Your task to perform on an android device: Open Google Chrome and click the shortcut for Amazon.com Image 0: 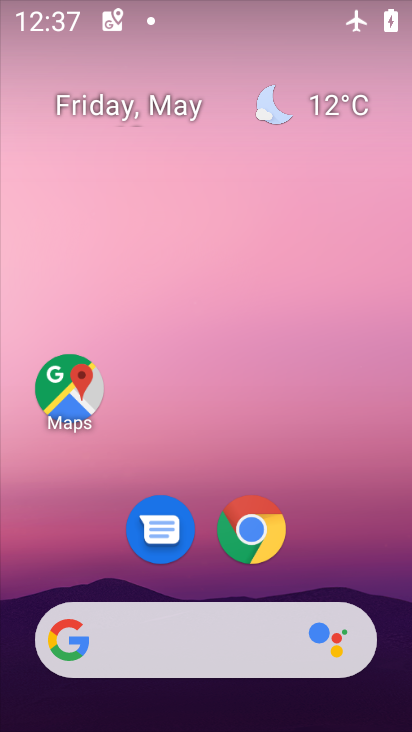
Step 0: drag from (300, 519) to (295, 271)
Your task to perform on an android device: Open Google Chrome and click the shortcut for Amazon.com Image 1: 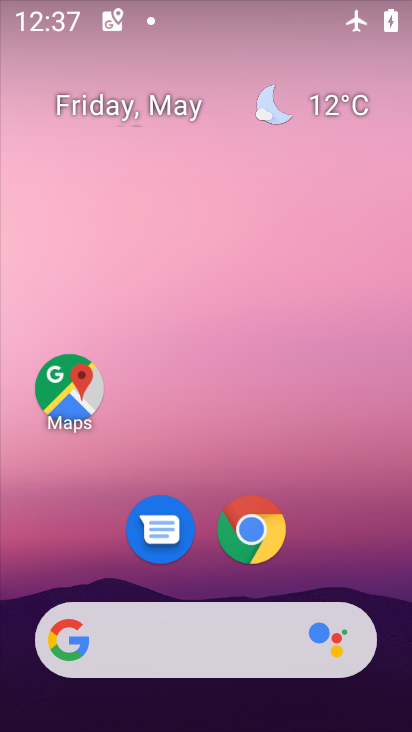
Step 1: drag from (302, 510) to (284, 231)
Your task to perform on an android device: Open Google Chrome and click the shortcut for Amazon.com Image 2: 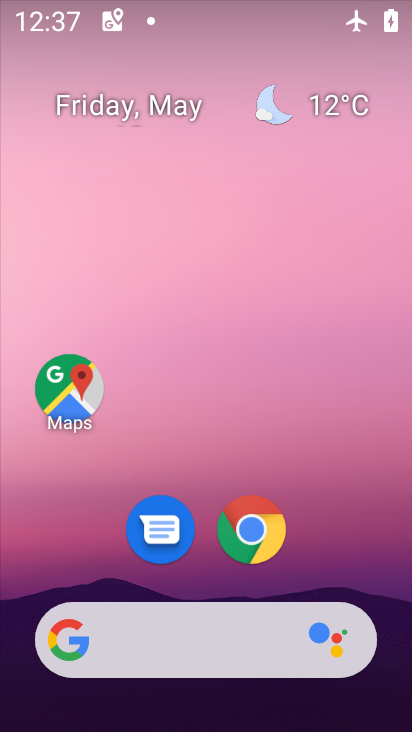
Step 2: drag from (265, 570) to (295, 262)
Your task to perform on an android device: Open Google Chrome and click the shortcut for Amazon.com Image 3: 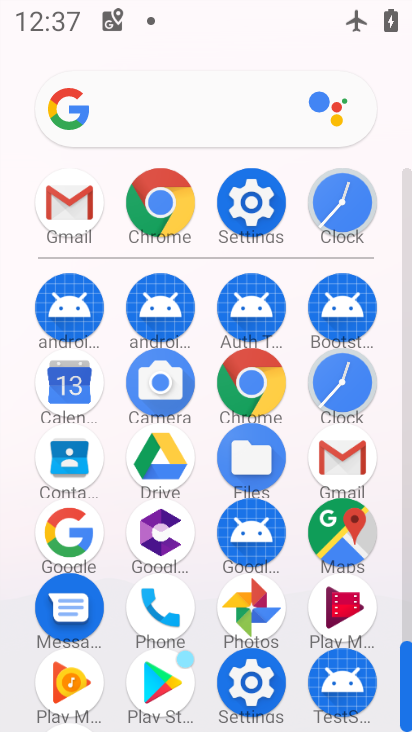
Step 3: click (244, 377)
Your task to perform on an android device: Open Google Chrome and click the shortcut for Amazon.com Image 4: 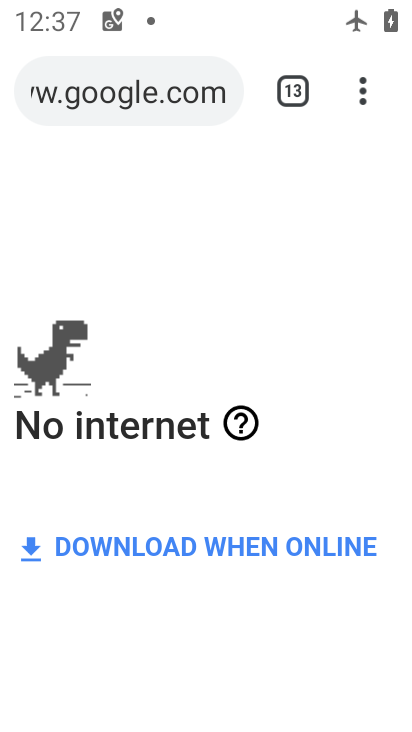
Step 4: click (331, 75)
Your task to perform on an android device: Open Google Chrome and click the shortcut for Amazon.com Image 5: 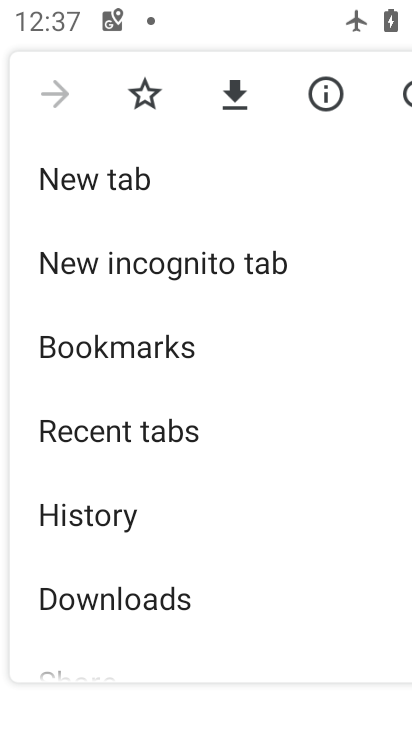
Step 5: click (92, 200)
Your task to perform on an android device: Open Google Chrome and click the shortcut for Amazon.com Image 6: 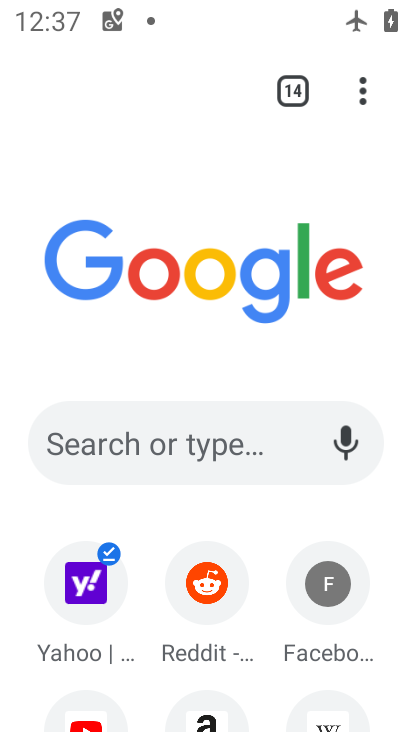
Step 6: drag from (313, 629) to (360, 273)
Your task to perform on an android device: Open Google Chrome and click the shortcut for Amazon.com Image 7: 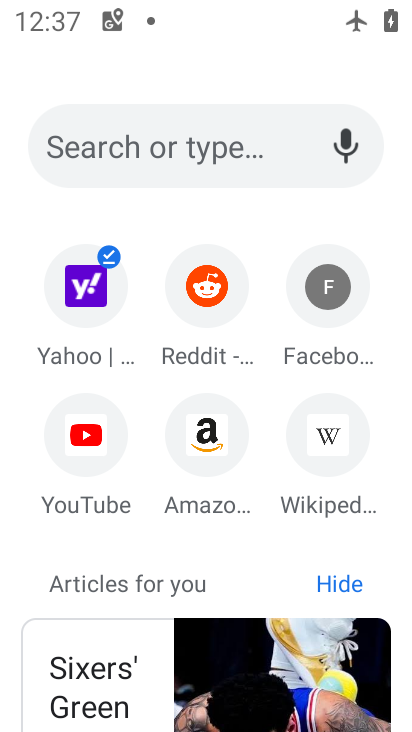
Step 7: click (215, 425)
Your task to perform on an android device: Open Google Chrome and click the shortcut for Amazon.com Image 8: 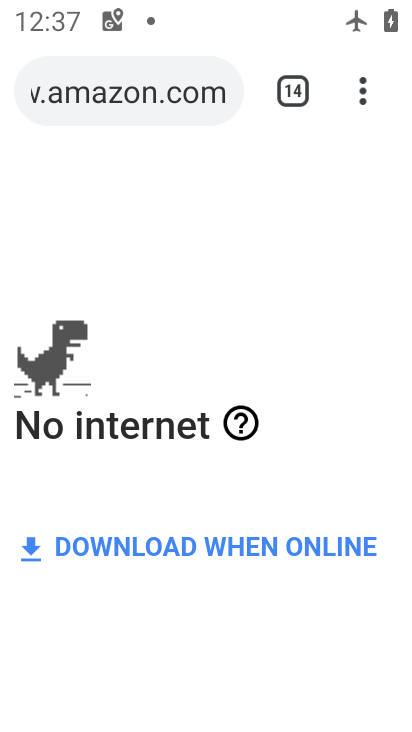
Step 8: task complete